Your task to perform on an android device: Turn off the flashlight Image 0: 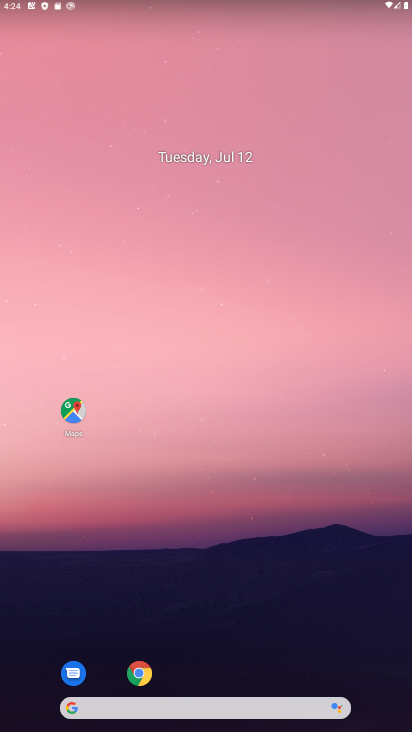
Step 0: drag from (336, 11) to (334, 648)
Your task to perform on an android device: Turn off the flashlight Image 1: 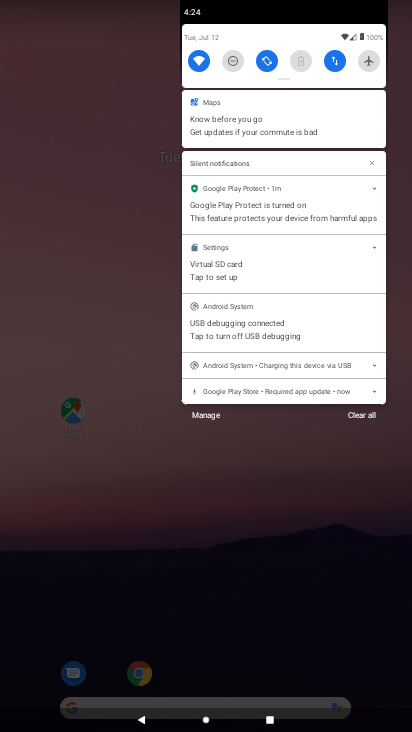
Step 1: task complete